Your task to perform on an android device: Open Yahoo.com Image 0: 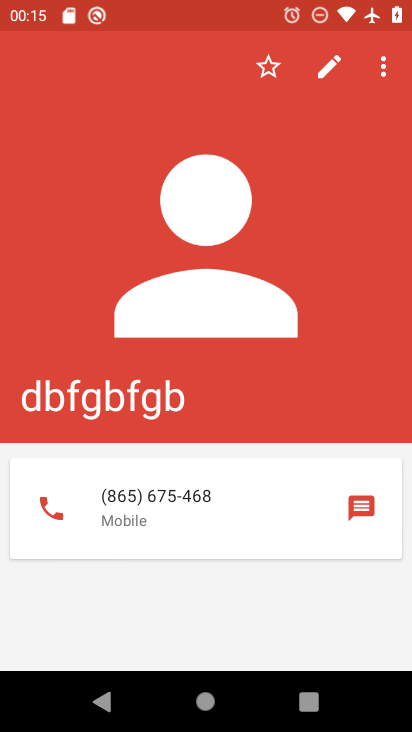
Step 0: press home button
Your task to perform on an android device: Open Yahoo.com Image 1: 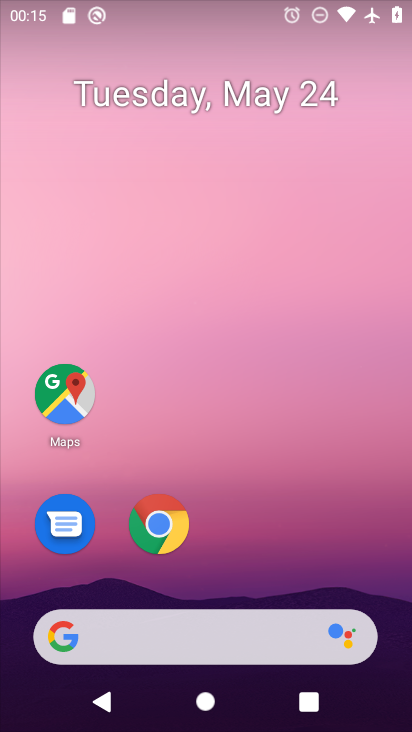
Step 1: click (181, 540)
Your task to perform on an android device: Open Yahoo.com Image 2: 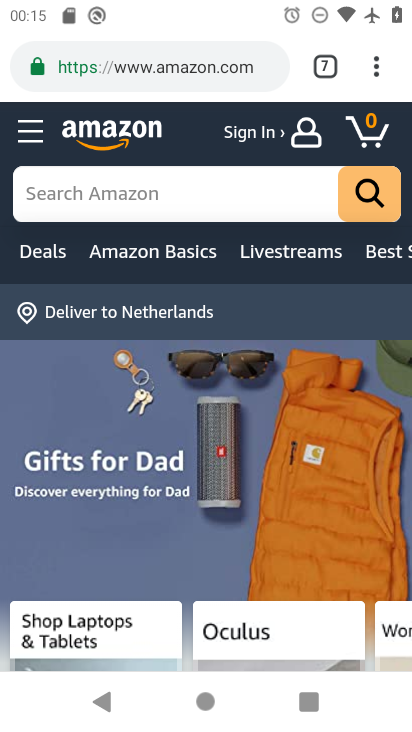
Step 2: click (327, 62)
Your task to perform on an android device: Open Yahoo.com Image 3: 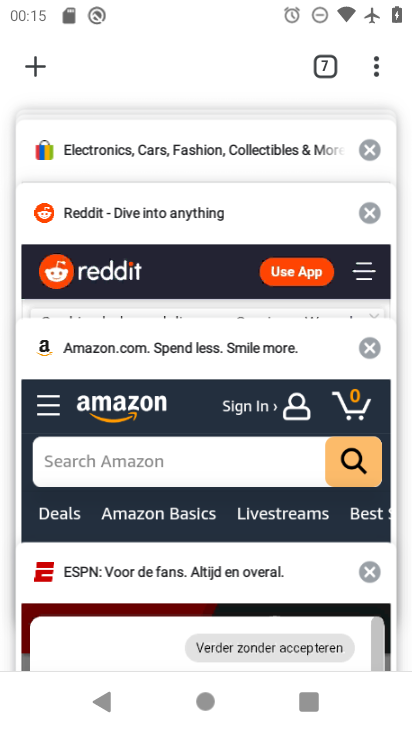
Step 3: drag from (144, 175) to (173, 447)
Your task to perform on an android device: Open Yahoo.com Image 4: 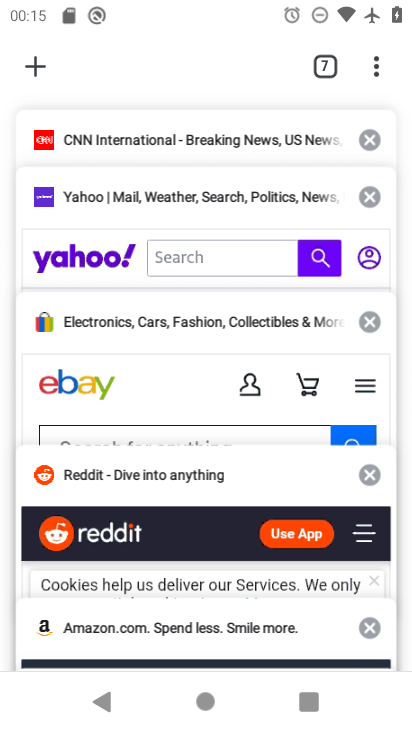
Step 4: click (142, 252)
Your task to perform on an android device: Open Yahoo.com Image 5: 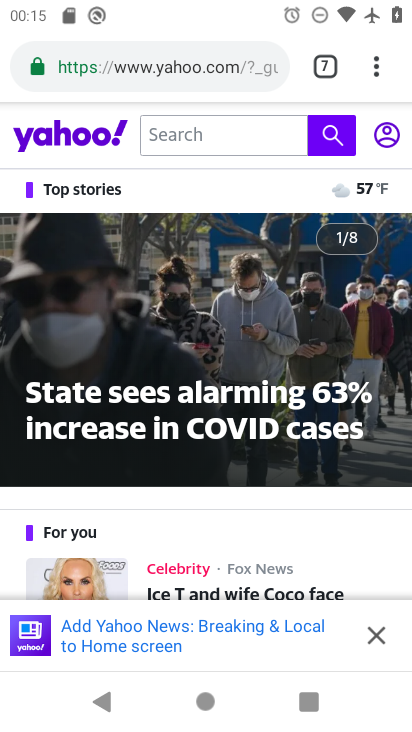
Step 5: task complete